Your task to perform on an android device: check android version Image 0: 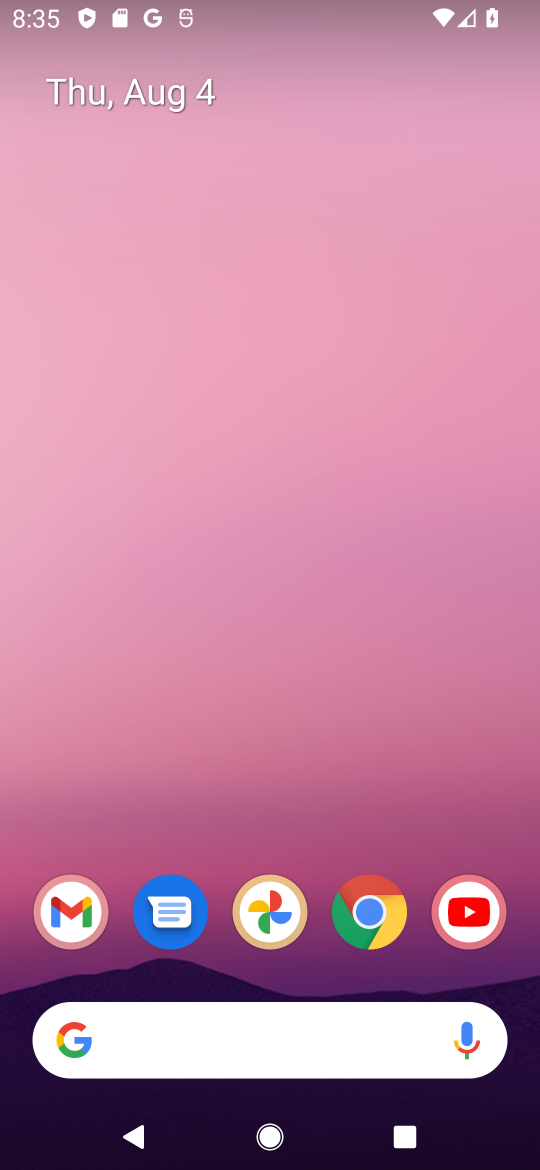
Step 0: drag from (377, 827) to (367, 22)
Your task to perform on an android device: check android version Image 1: 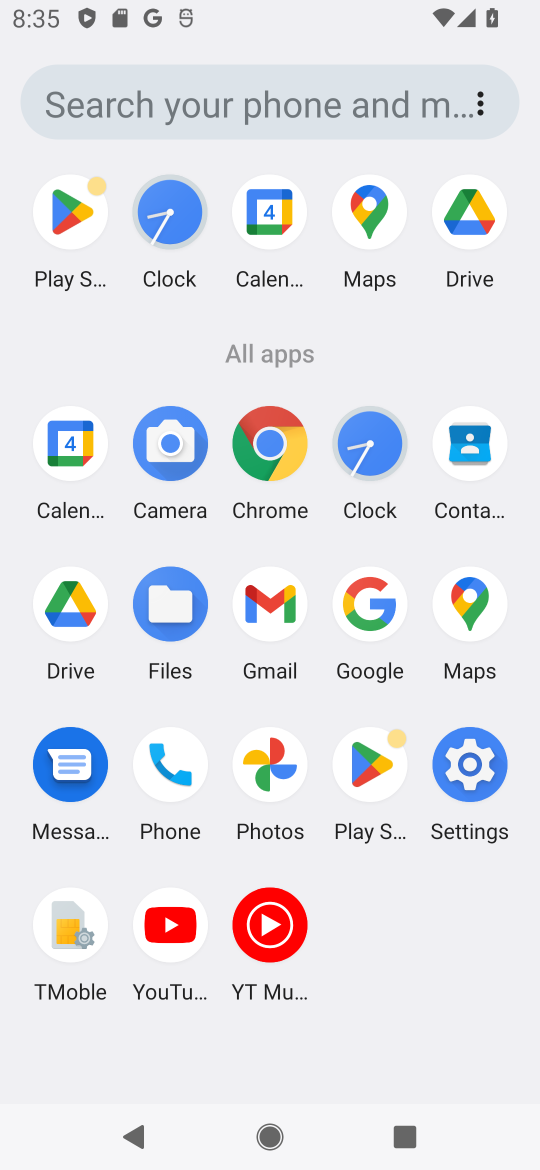
Step 1: click (488, 765)
Your task to perform on an android device: check android version Image 2: 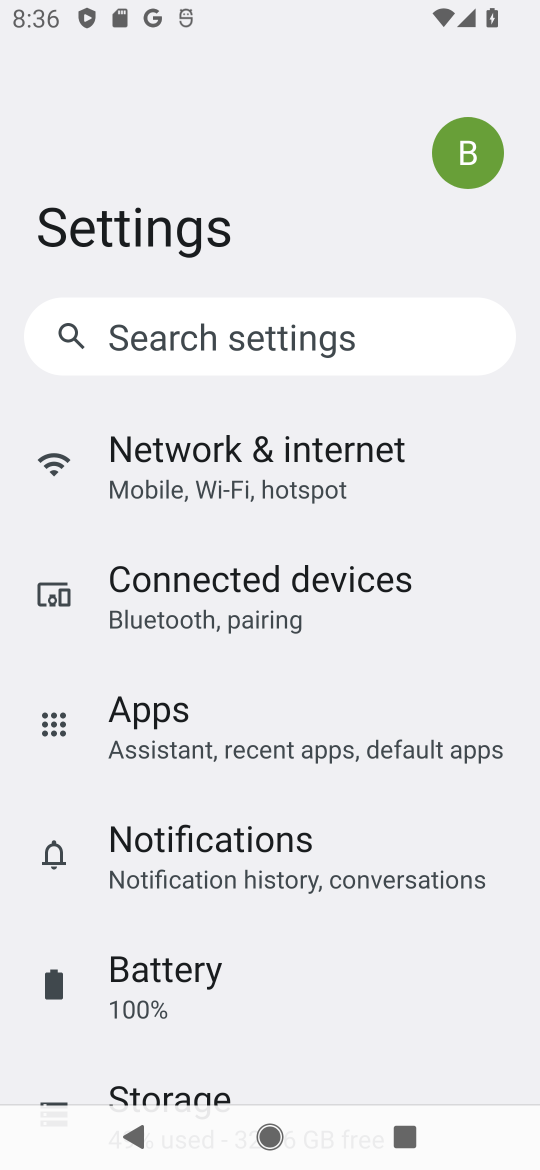
Step 2: drag from (463, 1003) to (416, 285)
Your task to perform on an android device: check android version Image 3: 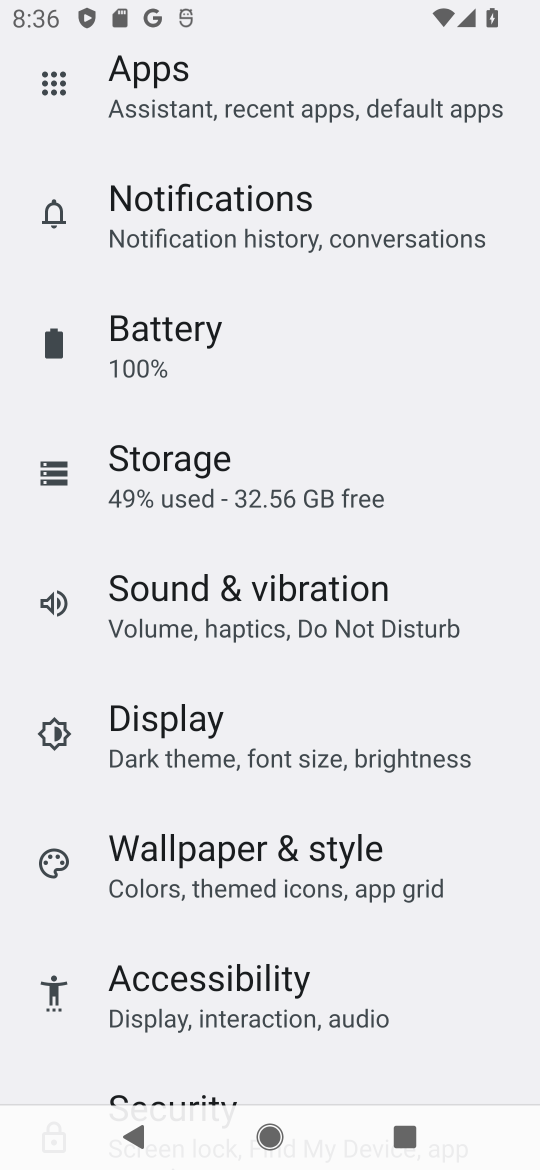
Step 3: drag from (306, 985) to (332, 96)
Your task to perform on an android device: check android version Image 4: 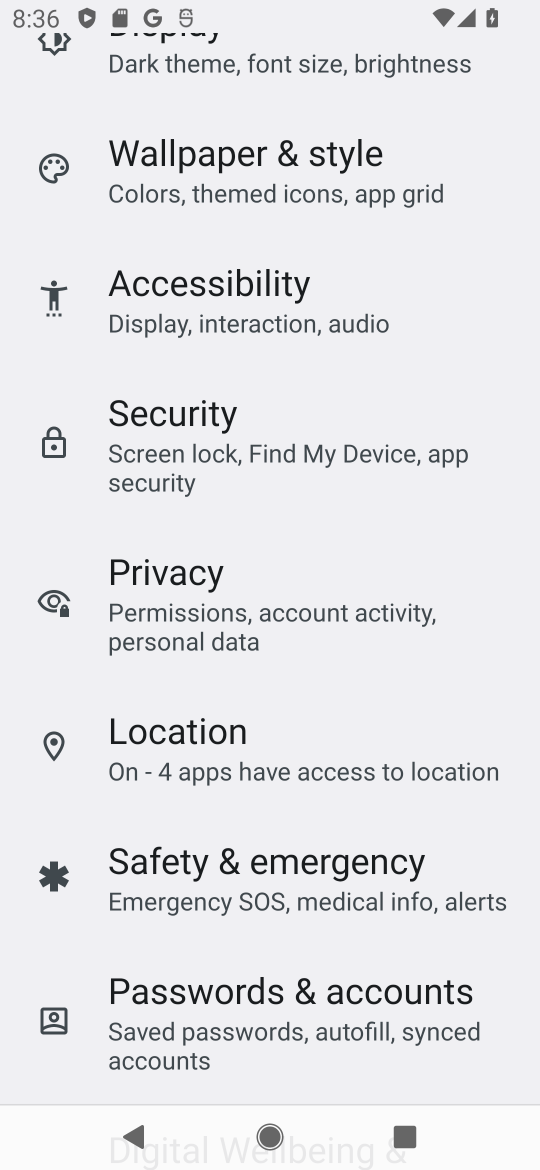
Step 4: drag from (375, 1032) to (354, 562)
Your task to perform on an android device: check android version Image 5: 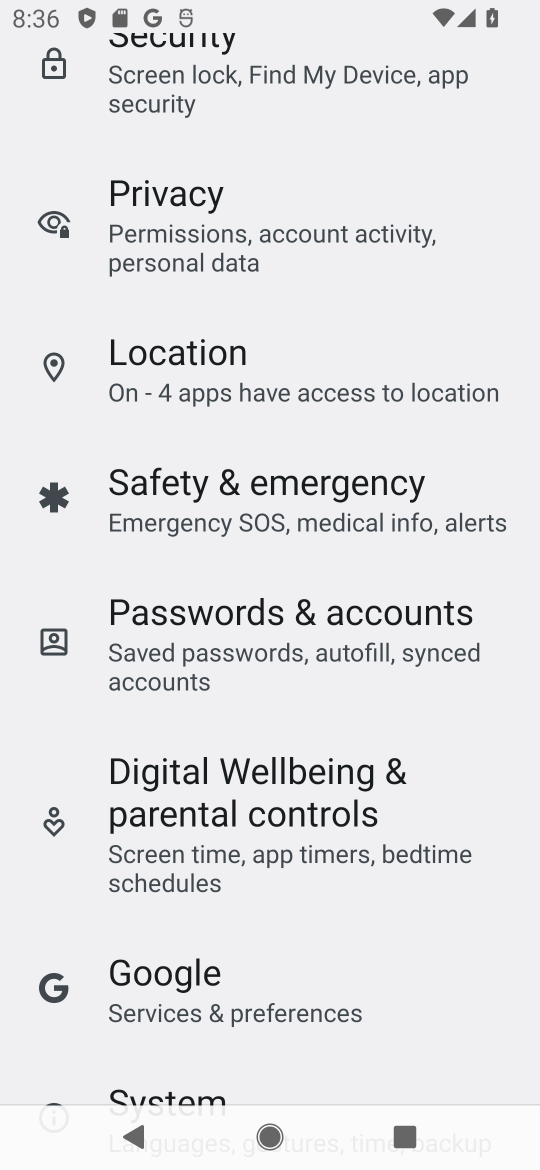
Step 5: drag from (376, 1042) to (329, 579)
Your task to perform on an android device: check android version Image 6: 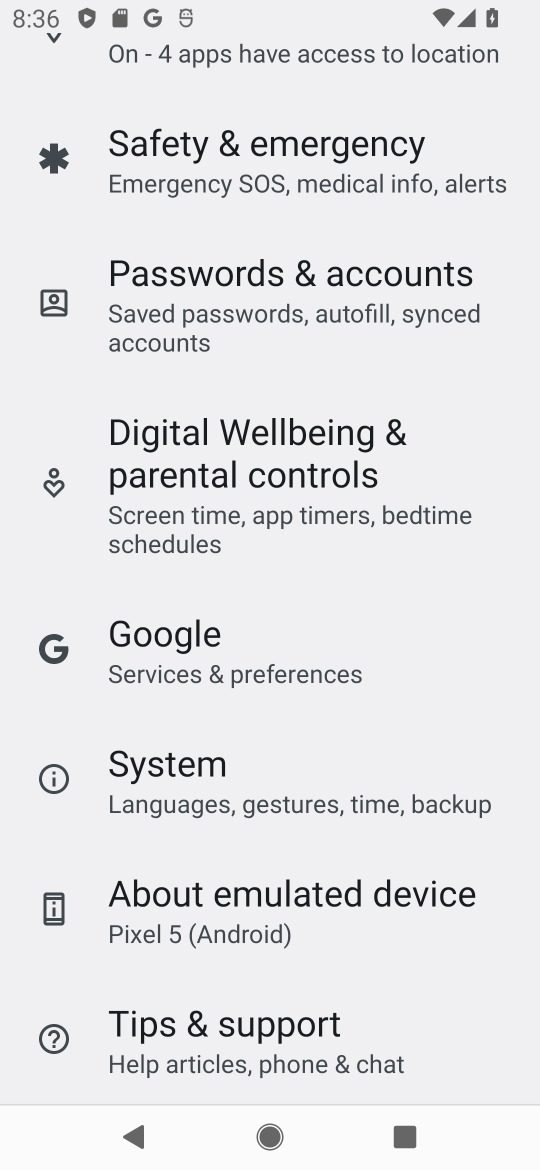
Step 6: click (383, 911)
Your task to perform on an android device: check android version Image 7: 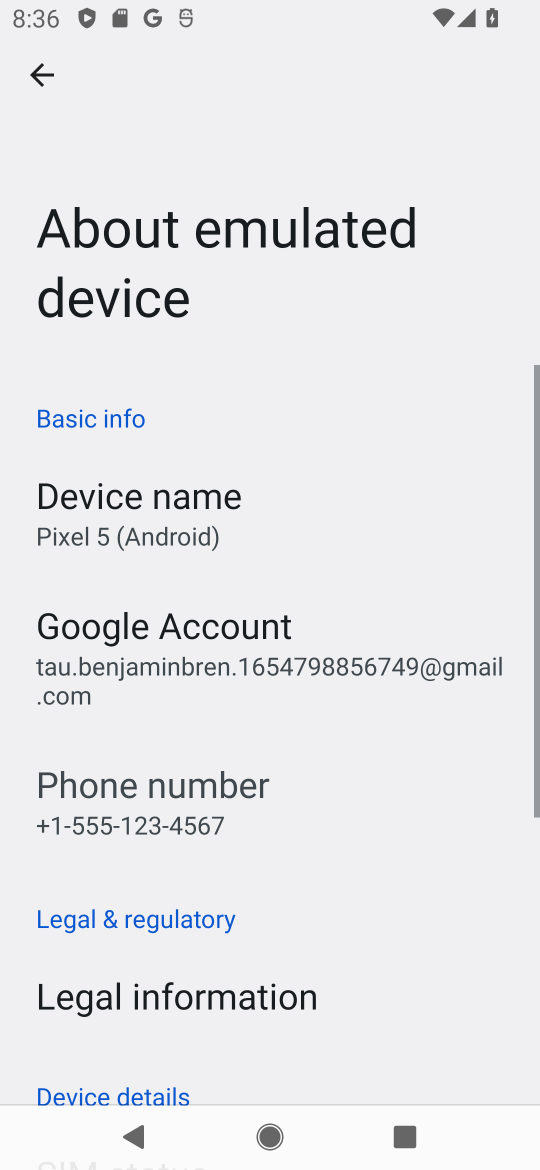
Step 7: drag from (440, 1029) to (362, 250)
Your task to perform on an android device: check android version Image 8: 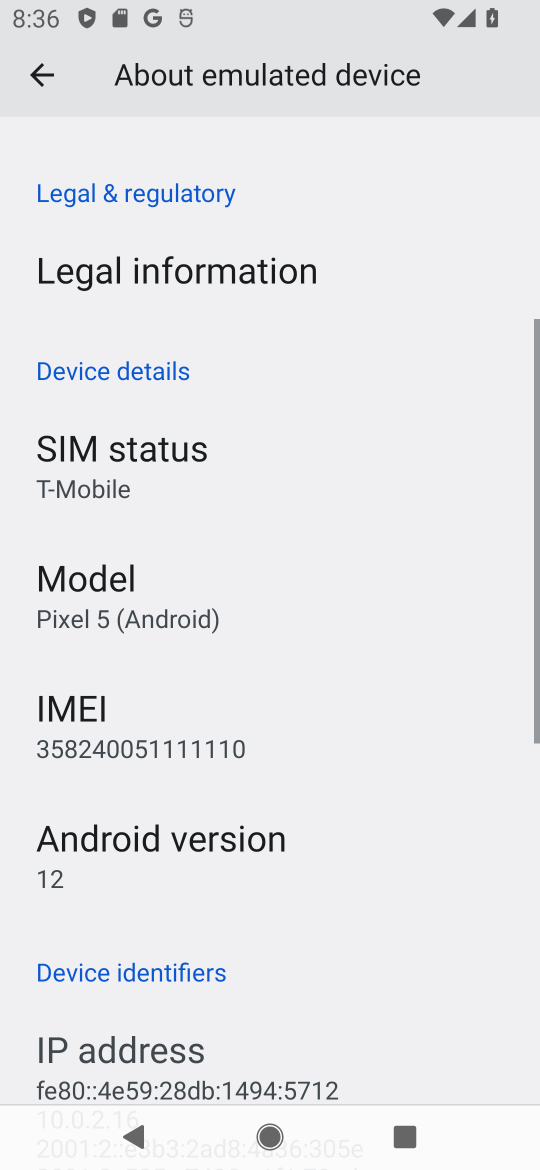
Step 8: click (353, 865)
Your task to perform on an android device: check android version Image 9: 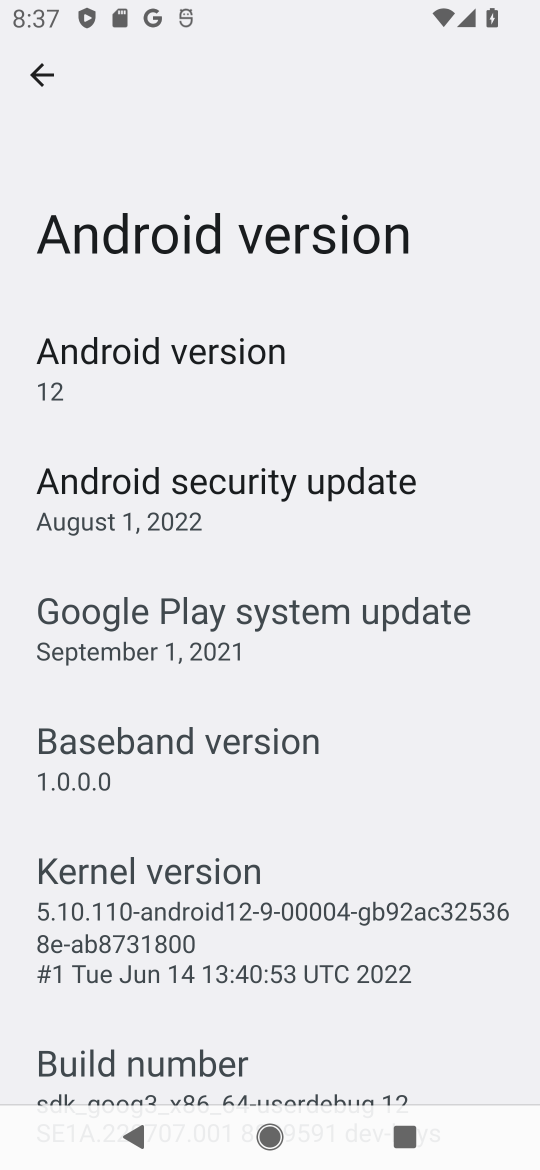
Step 9: task complete